Your task to perform on an android device: Search for vegetarian restaurants on Maps Image 0: 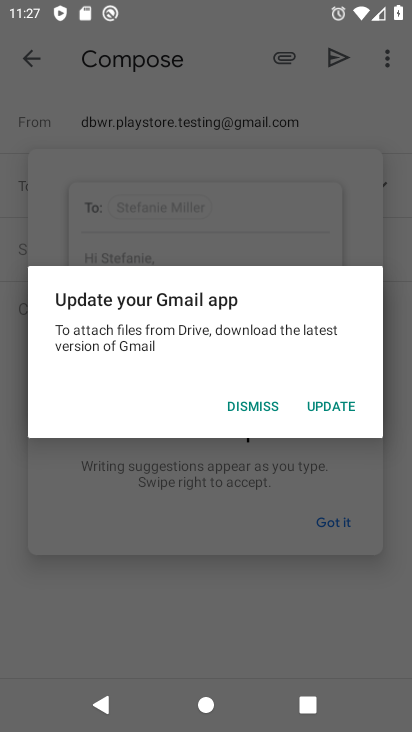
Step 0: press back button
Your task to perform on an android device: Search for vegetarian restaurants on Maps Image 1: 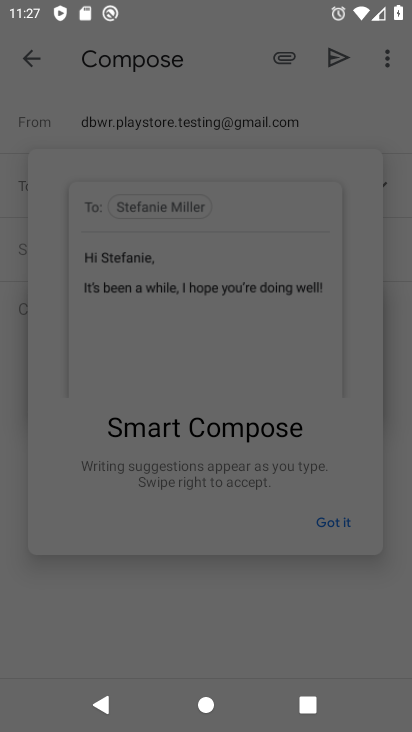
Step 1: press back button
Your task to perform on an android device: Search for vegetarian restaurants on Maps Image 2: 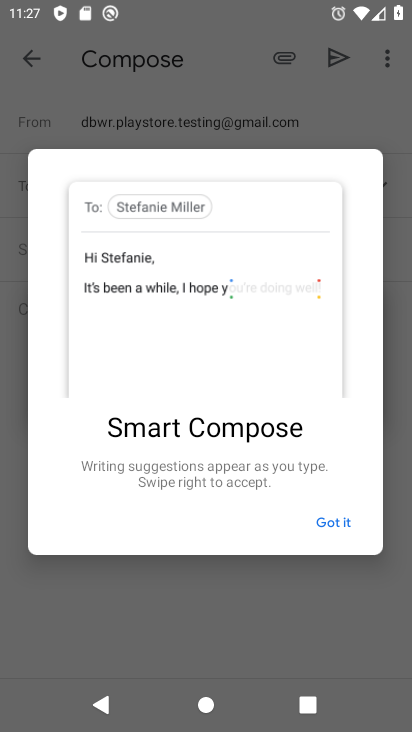
Step 2: press back button
Your task to perform on an android device: Search for vegetarian restaurants on Maps Image 3: 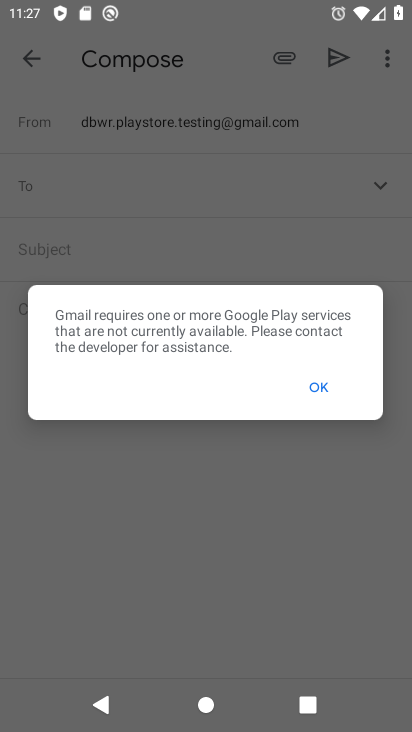
Step 3: press home button
Your task to perform on an android device: Search for vegetarian restaurants on Maps Image 4: 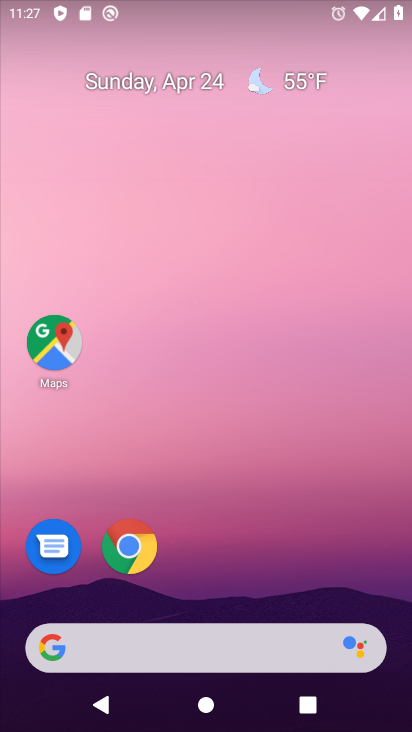
Step 4: click (54, 343)
Your task to perform on an android device: Search for vegetarian restaurants on Maps Image 5: 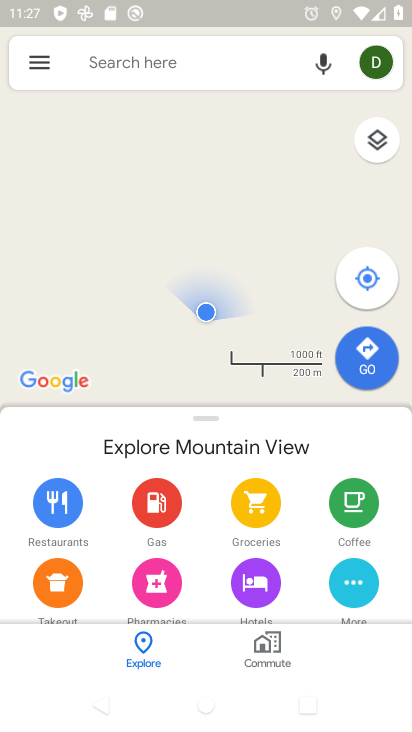
Step 5: click (218, 55)
Your task to perform on an android device: Search for vegetarian restaurants on Maps Image 6: 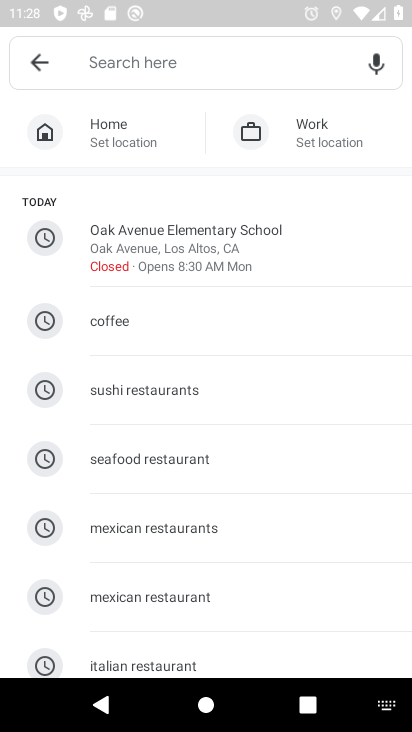
Step 6: type "vegetarian restaurants"
Your task to perform on an android device: Search for vegetarian restaurants on Maps Image 7: 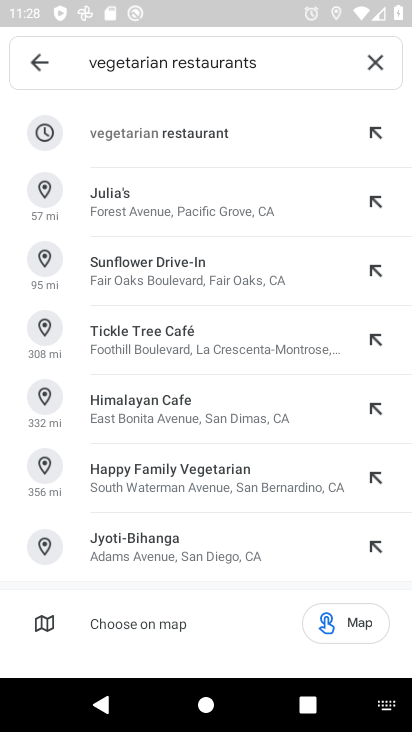
Step 7: click (187, 135)
Your task to perform on an android device: Search for vegetarian restaurants on Maps Image 8: 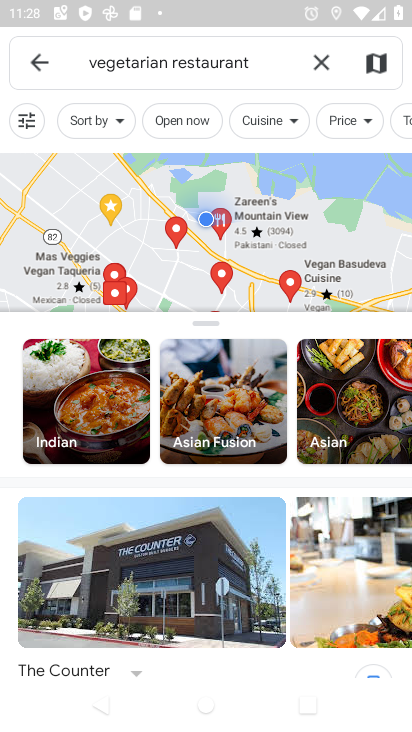
Step 8: task complete